Your task to perform on an android device: open device folders in google photos Image 0: 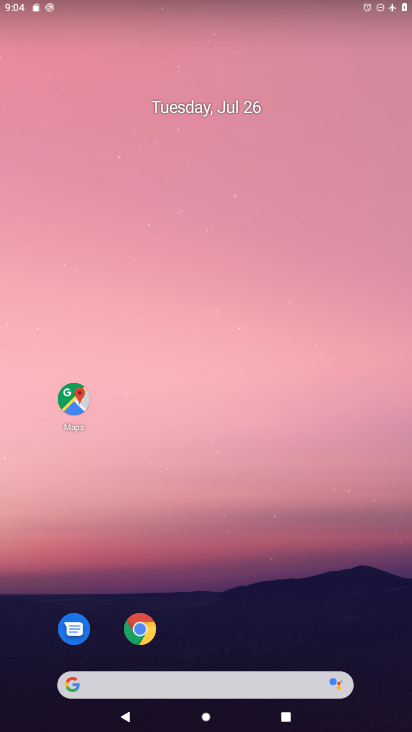
Step 0: drag from (214, 664) to (216, 88)
Your task to perform on an android device: open device folders in google photos Image 1: 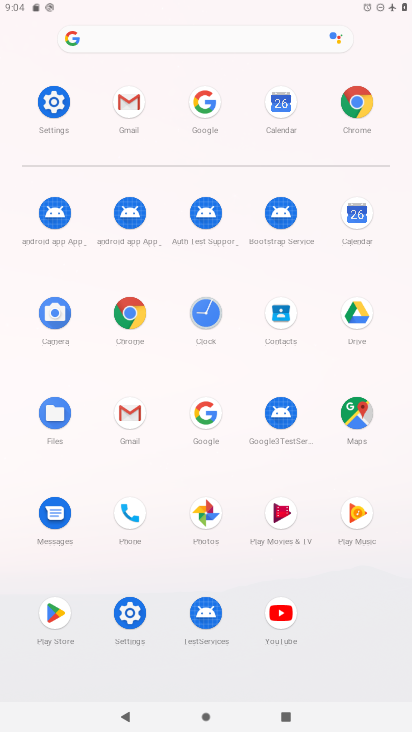
Step 1: click (213, 519)
Your task to perform on an android device: open device folders in google photos Image 2: 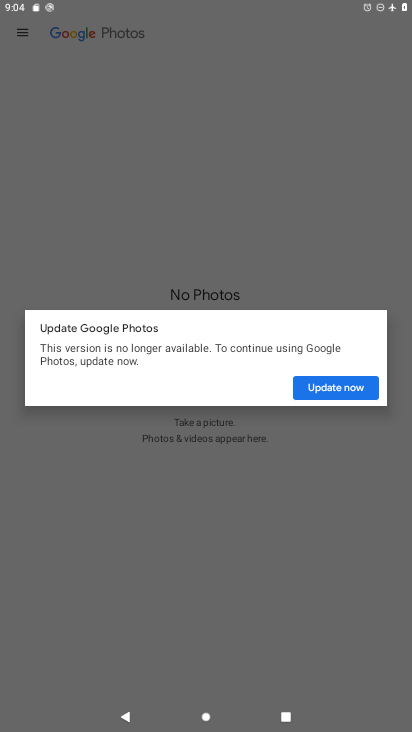
Step 2: click (311, 509)
Your task to perform on an android device: open device folders in google photos Image 3: 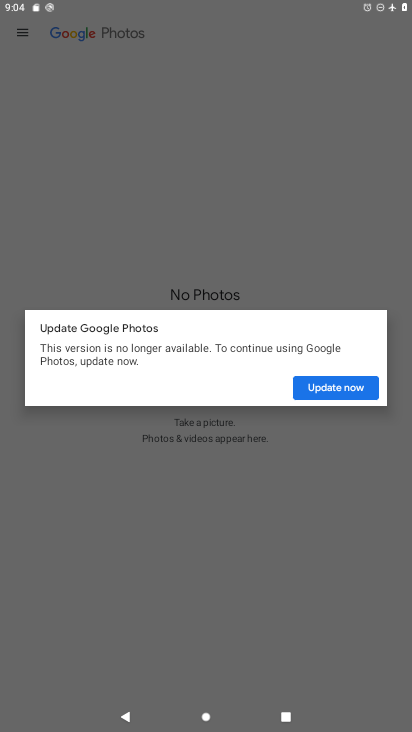
Step 3: click (317, 386)
Your task to perform on an android device: open device folders in google photos Image 4: 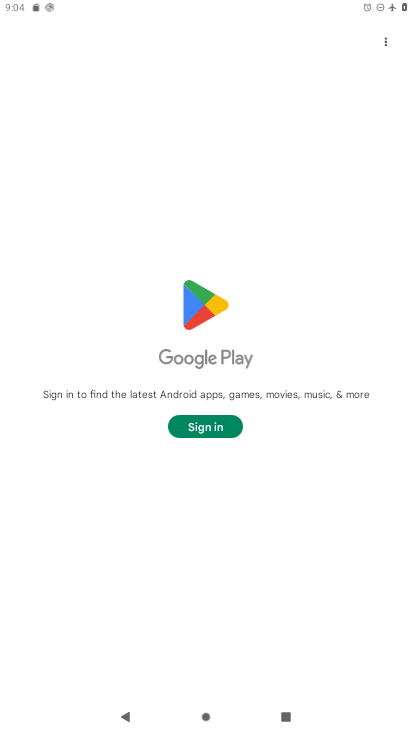
Step 4: press back button
Your task to perform on an android device: open device folders in google photos Image 5: 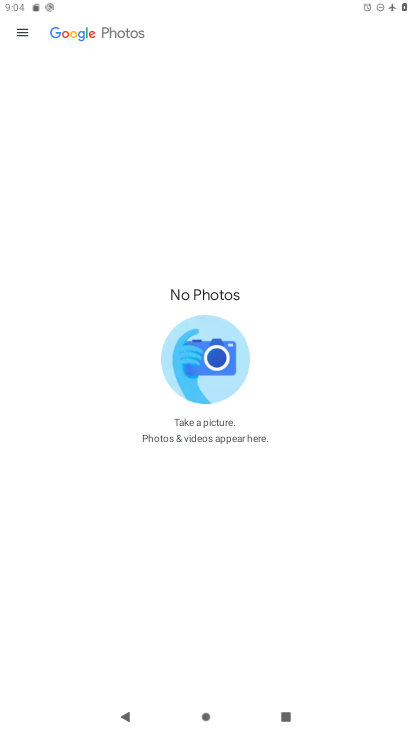
Step 5: click (22, 29)
Your task to perform on an android device: open device folders in google photos Image 6: 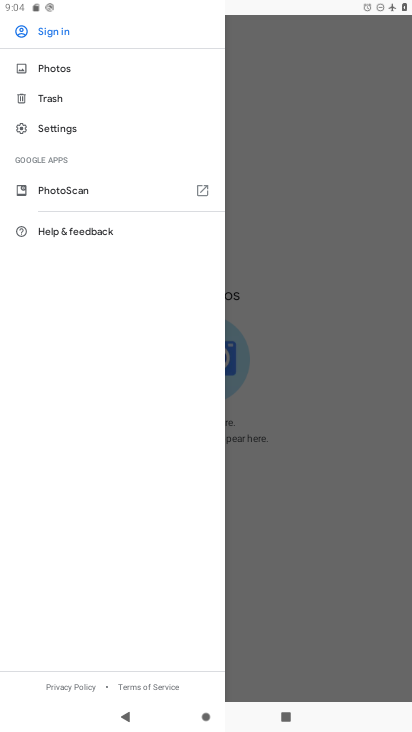
Step 6: task complete